Your task to perform on an android device: change text size in settings app Image 0: 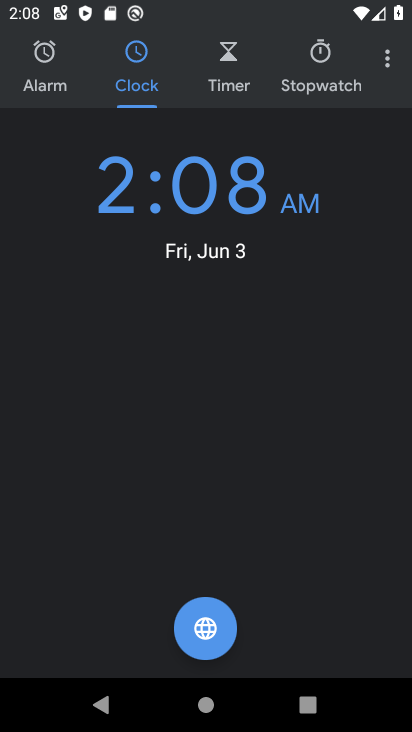
Step 0: press home button
Your task to perform on an android device: change text size in settings app Image 1: 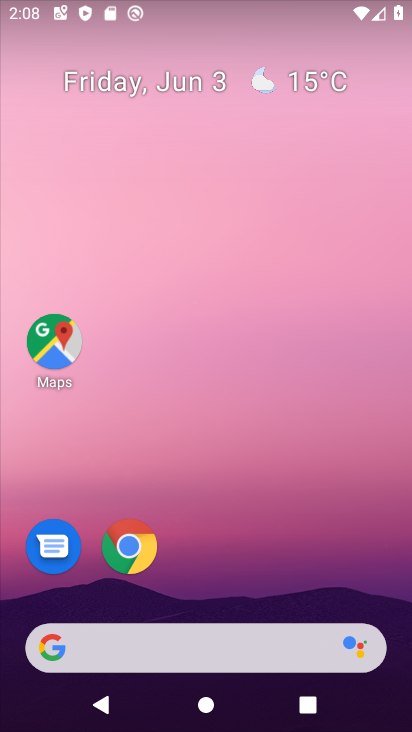
Step 1: drag from (374, 527) to (295, 16)
Your task to perform on an android device: change text size in settings app Image 2: 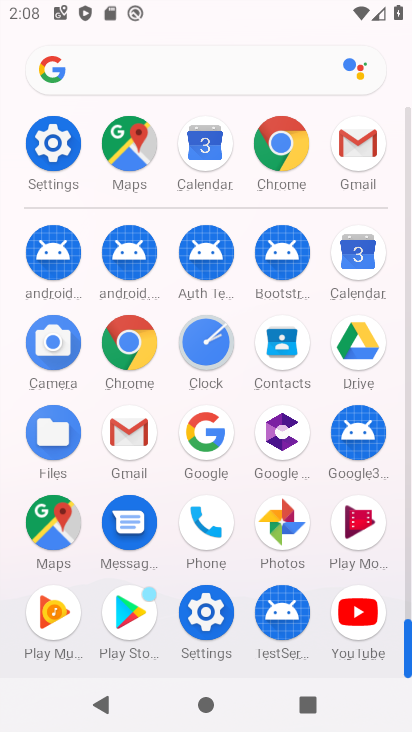
Step 2: click (49, 136)
Your task to perform on an android device: change text size in settings app Image 3: 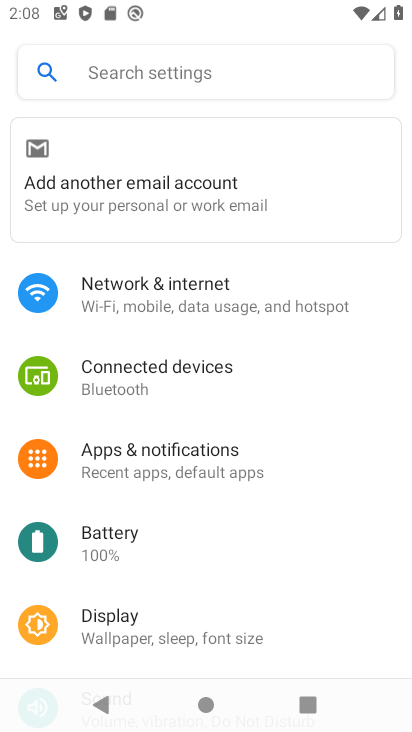
Step 3: click (215, 638)
Your task to perform on an android device: change text size in settings app Image 4: 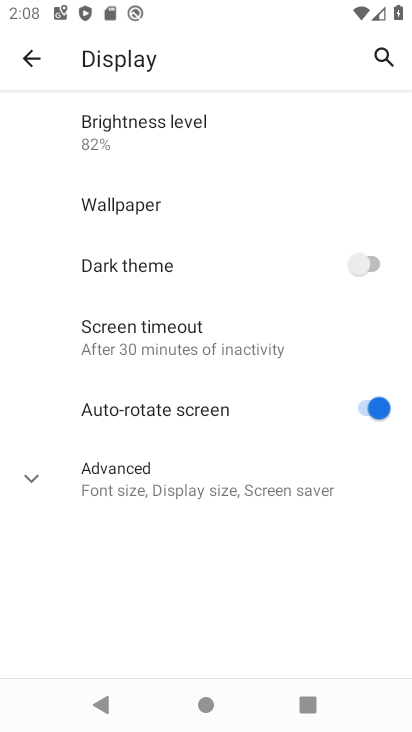
Step 4: click (184, 343)
Your task to perform on an android device: change text size in settings app Image 5: 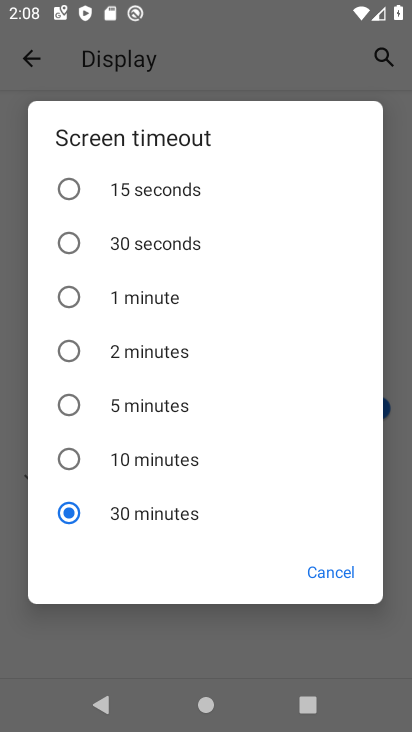
Step 5: click (340, 564)
Your task to perform on an android device: change text size in settings app Image 6: 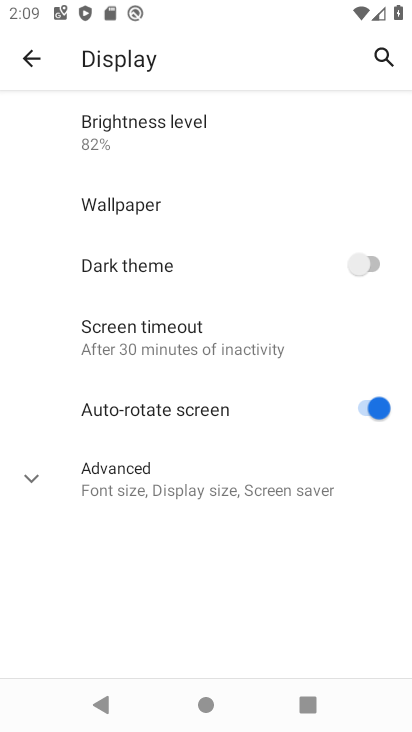
Step 6: click (303, 488)
Your task to perform on an android device: change text size in settings app Image 7: 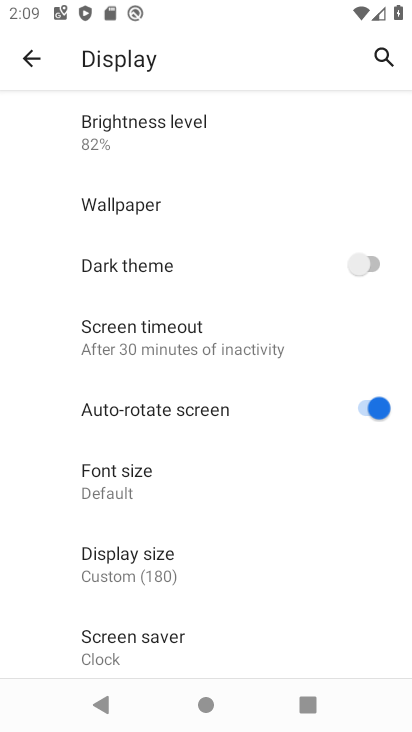
Step 7: click (113, 491)
Your task to perform on an android device: change text size in settings app Image 8: 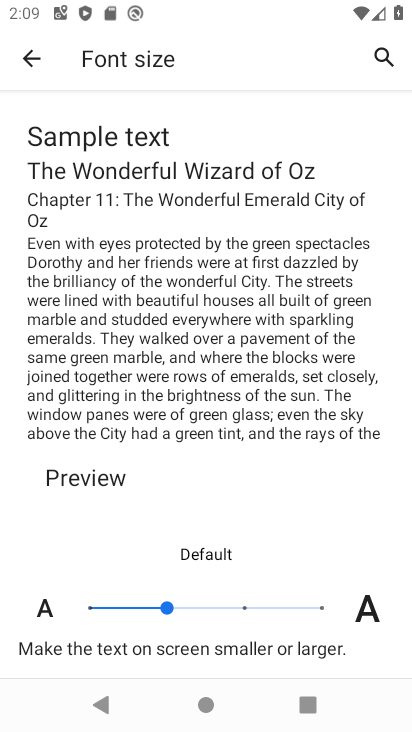
Step 8: click (192, 606)
Your task to perform on an android device: change text size in settings app Image 9: 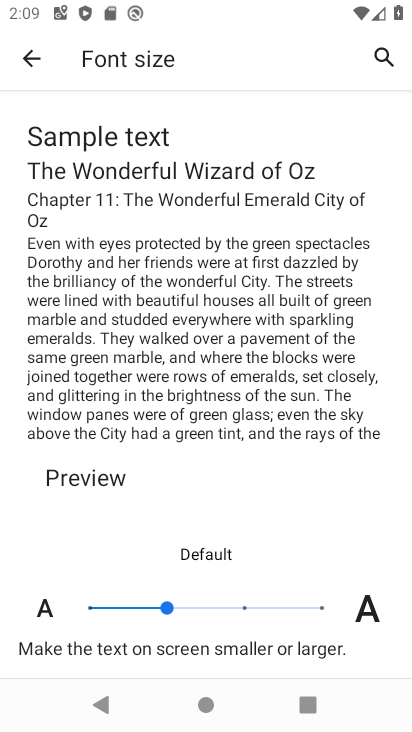
Step 9: click (203, 605)
Your task to perform on an android device: change text size in settings app Image 10: 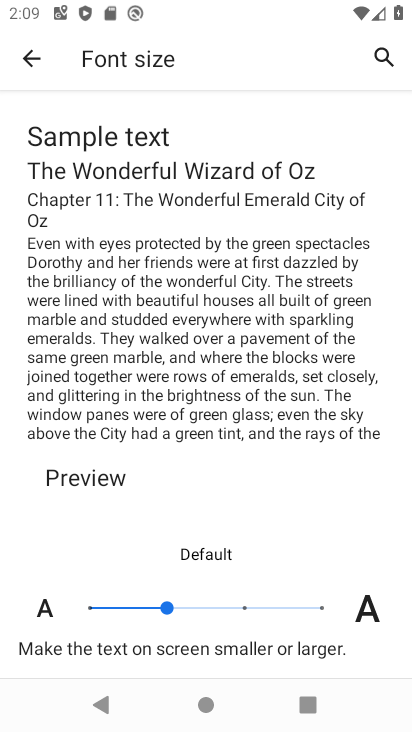
Step 10: task complete